Your task to perform on an android device: make emails show in primary in the gmail app Image 0: 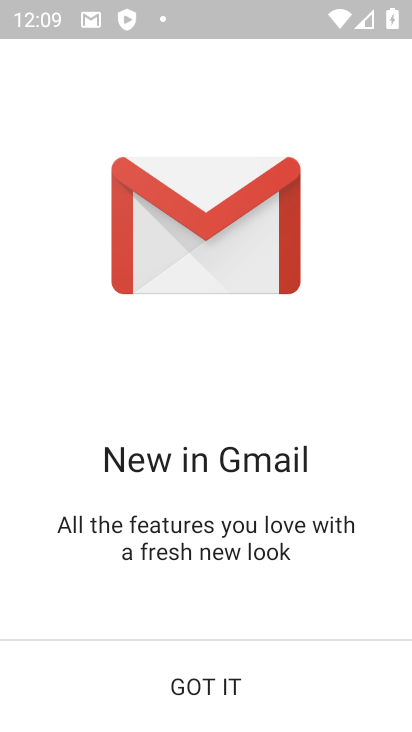
Step 0: click (250, 671)
Your task to perform on an android device: make emails show in primary in the gmail app Image 1: 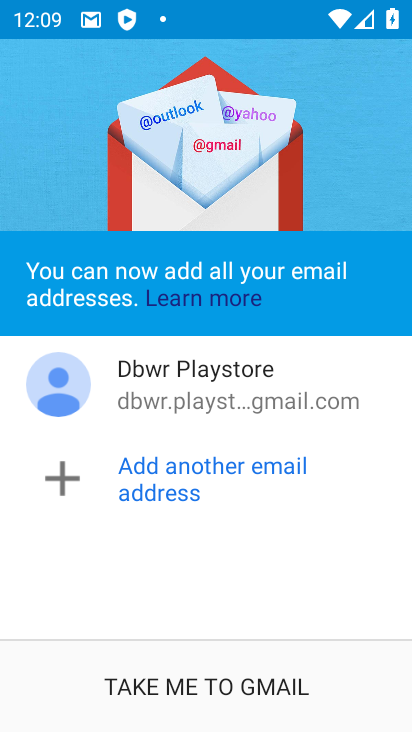
Step 1: click (253, 674)
Your task to perform on an android device: make emails show in primary in the gmail app Image 2: 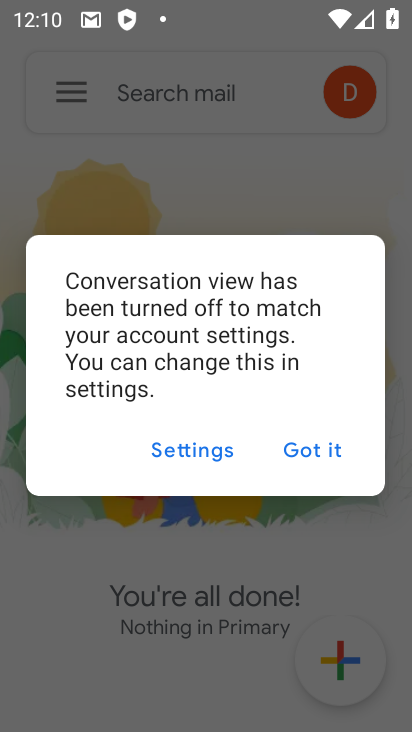
Step 2: press home button
Your task to perform on an android device: make emails show in primary in the gmail app Image 3: 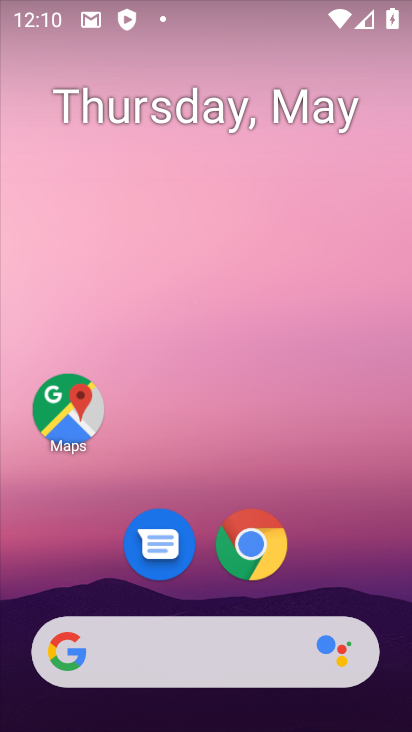
Step 3: drag from (247, 704) to (239, 69)
Your task to perform on an android device: make emails show in primary in the gmail app Image 4: 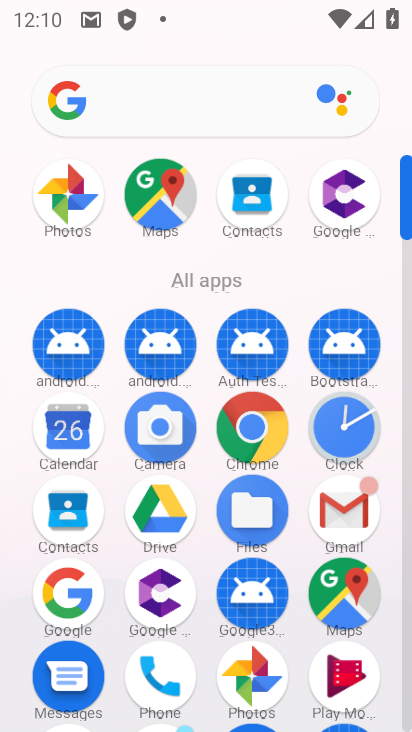
Step 4: click (357, 526)
Your task to perform on an android device: make emails show in primary in the gmail app Image 5: 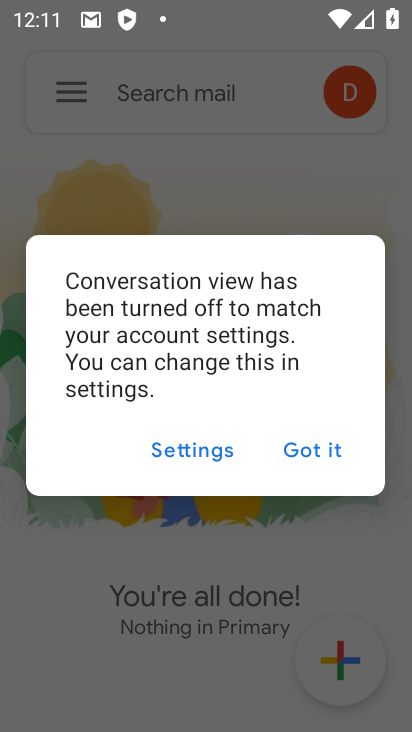
Step 5: click (324, 454)
Your task to perform on an android device: make emails show in primary in the gmail app Image 6: 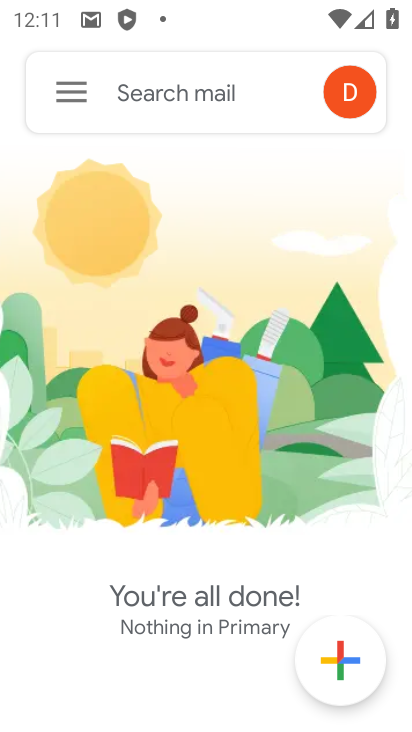
Step 6: click (53, 95)
Your task to perform on an android device: make emails show in primary in the gmail app Image 7: 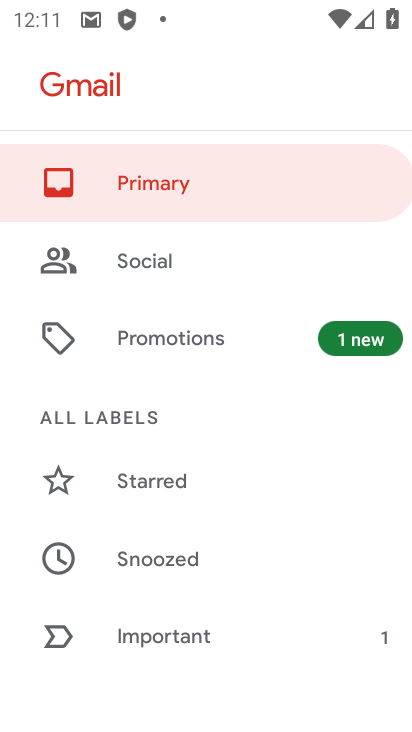
Step 7: drag from (299, 617) to (303, 45)
Your task to perform on an android device: make emails show in primary in the gmail app Image 8: 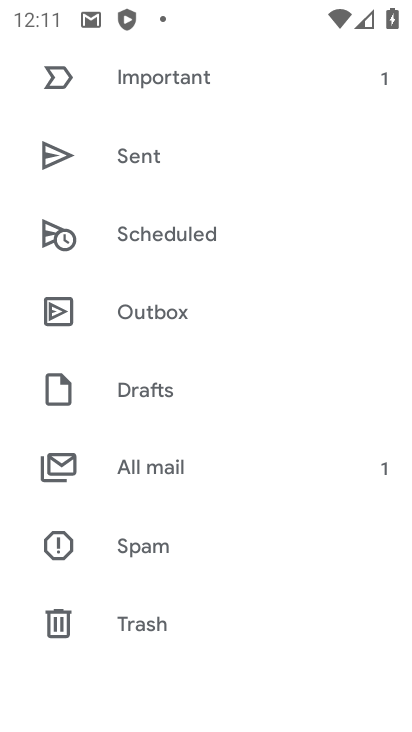
Step 8: drag from (200, 585) to (214, 20)
Your task to perform on an android device: make emails show in primary in the gmail app Image 9: 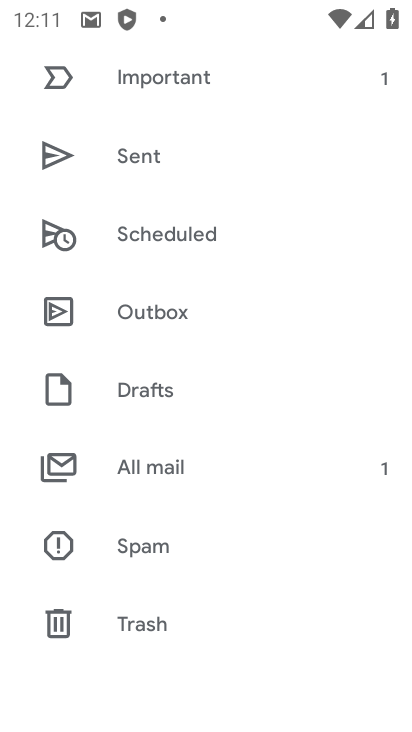
Step 9: drag from (124, 554) to (285, 40)
Your task to perform on an android device: make emails show in primary in the gmail app Image 10: 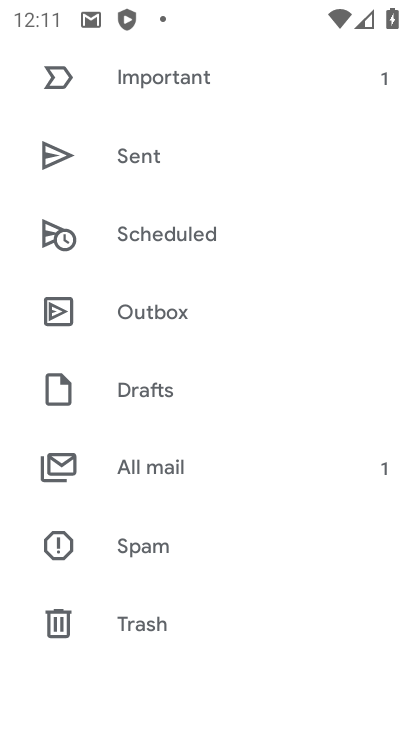
Step 10: drag from (241, 613) to (311, 0)
Your task to perform on an android device: make emails show in primary in the gmail app Image 11: 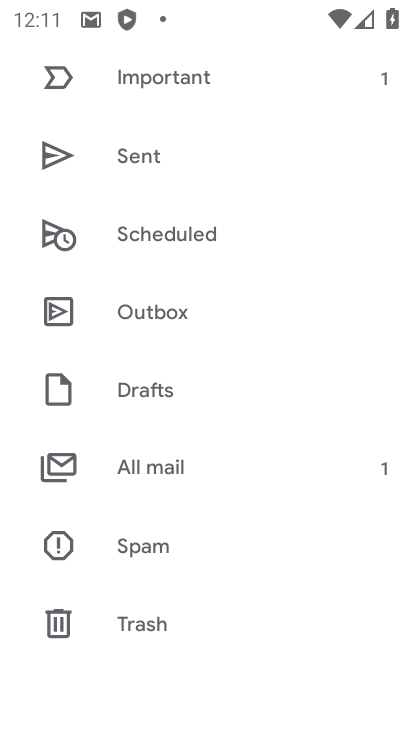
Step 11: drag from (256, 596) to (307, 85)
Your task to perform on an android device: make emails show in primary in the gmail app Image 12: 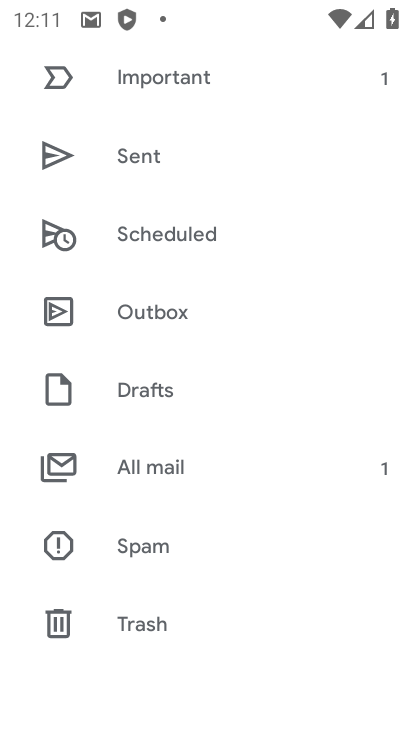
Step 12: drag from (206, 577) to (391, 485)
Your task to perform on an android device: make emails show in primary in the gmail app Image 13: 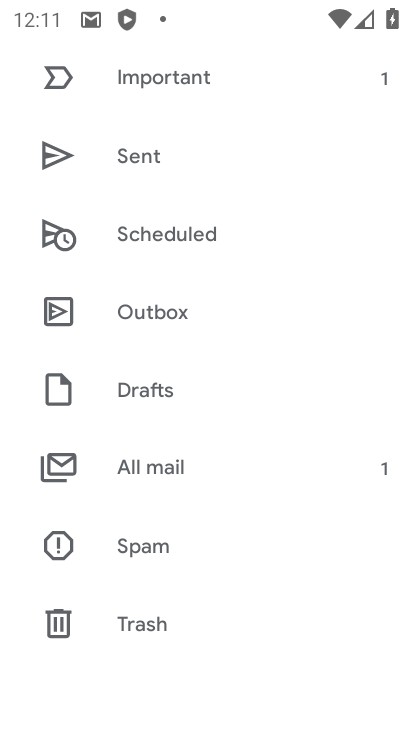
Step 13: drag from (180, 616) to (349, 14)
Your task to perform on an android device: make emails show in primary in the gmail app Image 14: 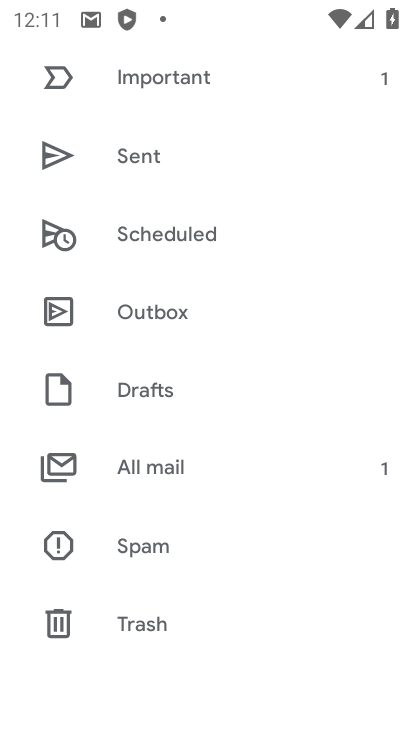
Step 14: drag from (257, 707) to (279, 44)
Your task to perform on an android device: make emails show in primary in the gmail app Image 15: 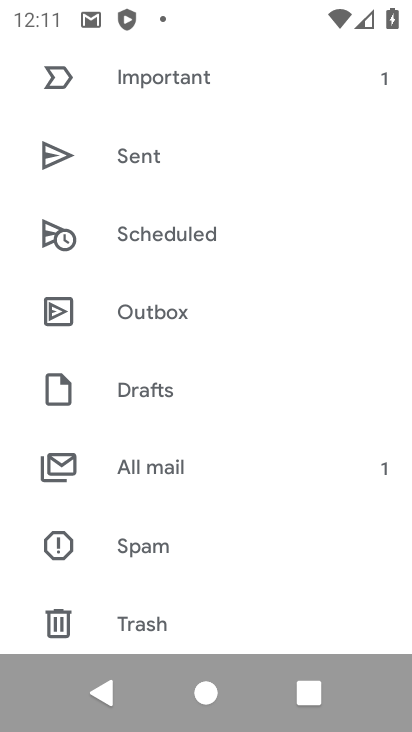
Step 15: drag from (218, 615) to (30, 296)
Your task to perform on an android device: make emails show in primary in the gmail app Image 16: 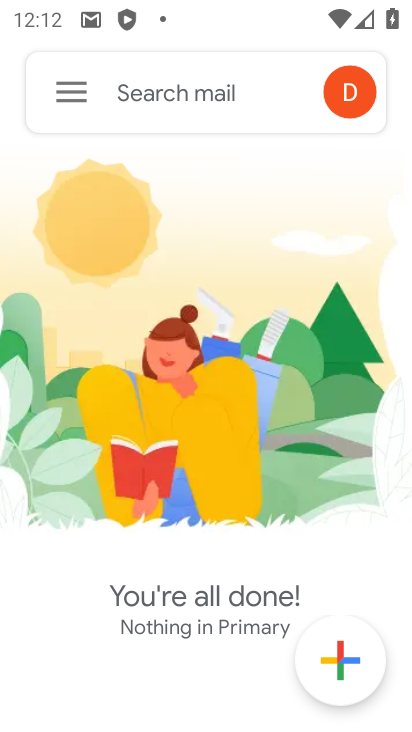
Step 16: click (90, 96)
Your task to perform on an android device: make emails show in primary in the gmail app Image 17: 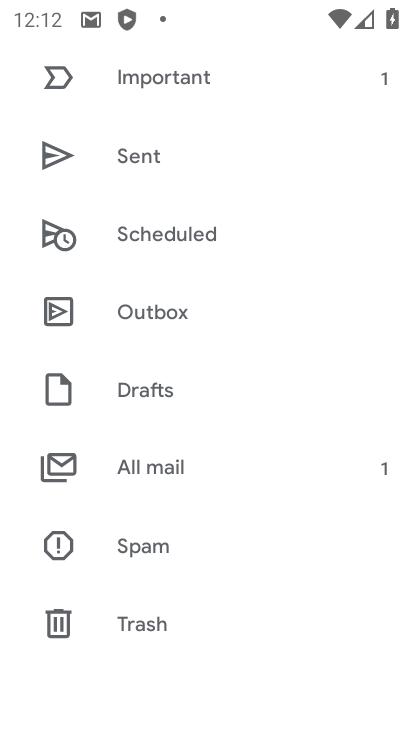
Step 17: drag from (291, 658) to (403, 204)
Your task to perform on an android device: make emails show in primary in the gmail app Image 18: 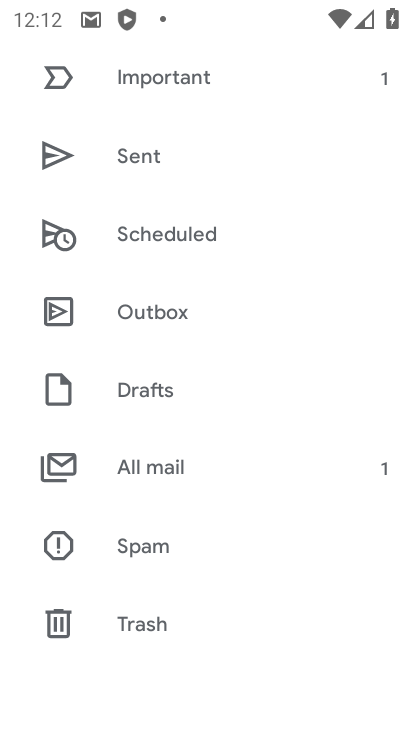
Step 18: drag from (217, 607) to (367, 89)
Your task to perform on an android device: make emails show in primary in the gmail app Image 19: 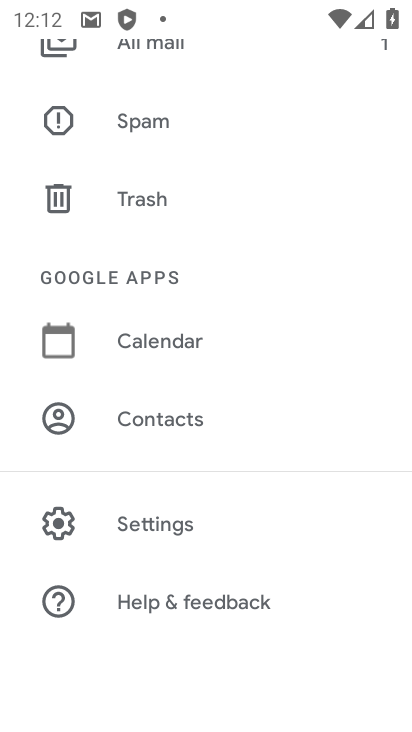
Step 19: click (190, 515)
Your task to perform on an android device: make emails show in primary in the gmail app Image 20: 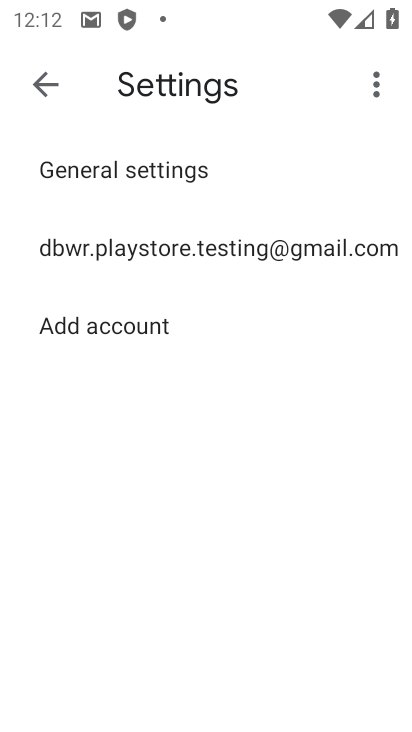
Step 20: click (314, 254)
Your task to perform on an android device: make emails show in primary in the gmail app Image 21: 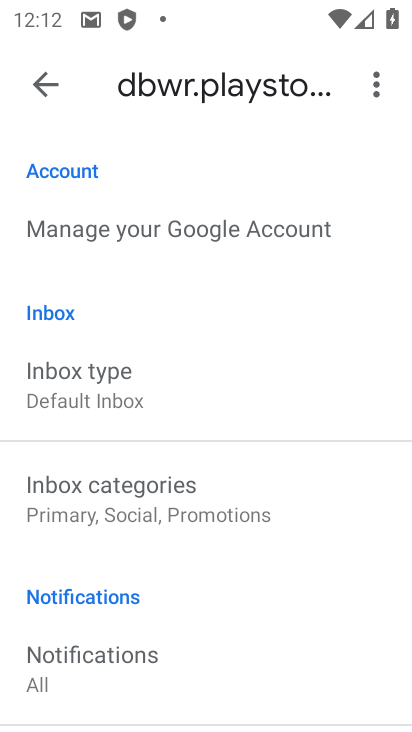
Step 21: click (152, 392)
Your task to perform on an android device: make emails show in primary in the gmail app Image 22: 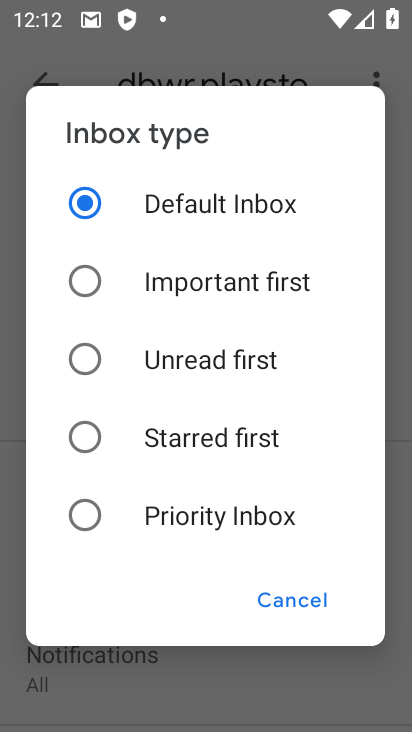
Step 22: click (223, 515)
Your task to perform on an android device: make emails show in primary in the gmail app Image 23: 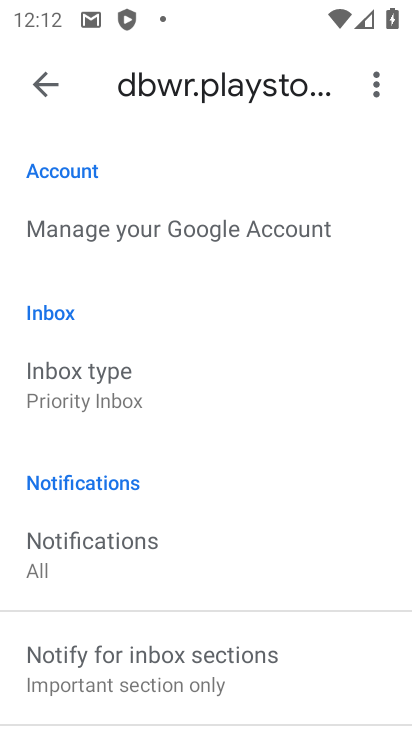
Step 23: task complete